Your task to perform on an android device: toggle show notifications on the lock screen Image 0: 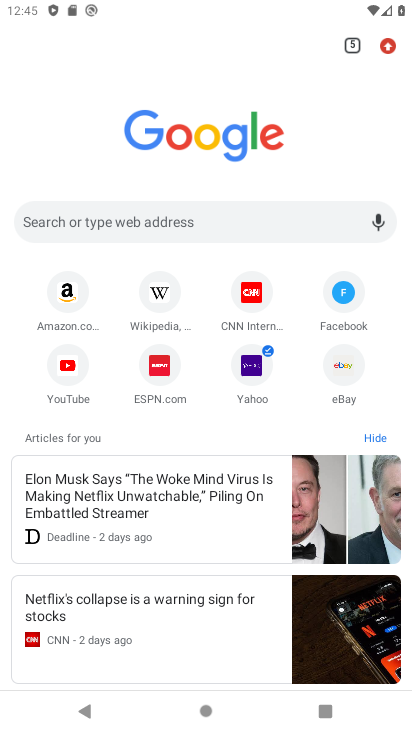
Step 0: press home button
Your task to perform on an android device: toggle show notifications on the lock screen Image 1: 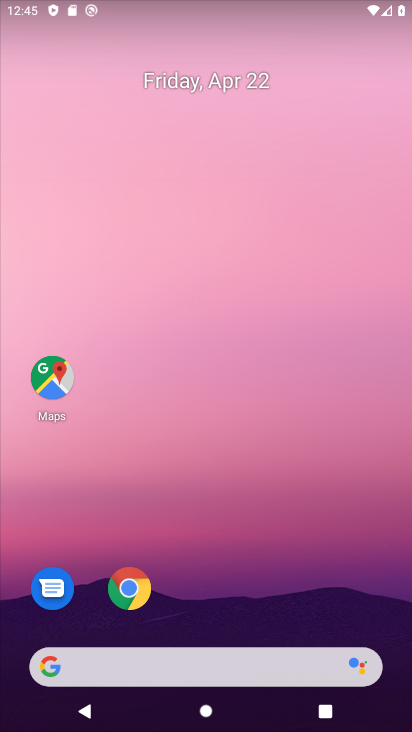
Step 1: drag from (241, 695) to (239, 293)
Your task to perform on an android device: toggle show notifications on the lock screen Image 2: 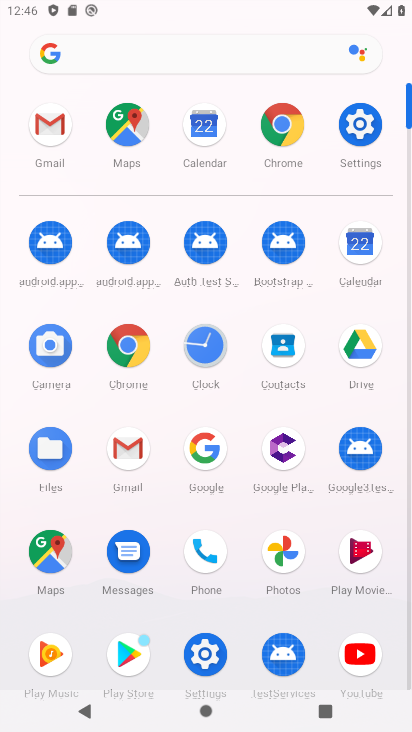
Step 2: click (209, 635)
Your task to perform on an android device: toggle show notifications on the lock screen Image 3: 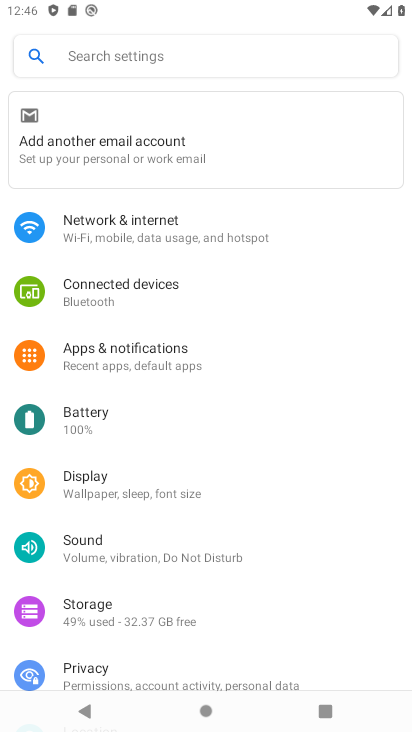
Step 3: click (189, 64)
Your task to perform on an android device: toggle show notifications on the lock screen Image 4: 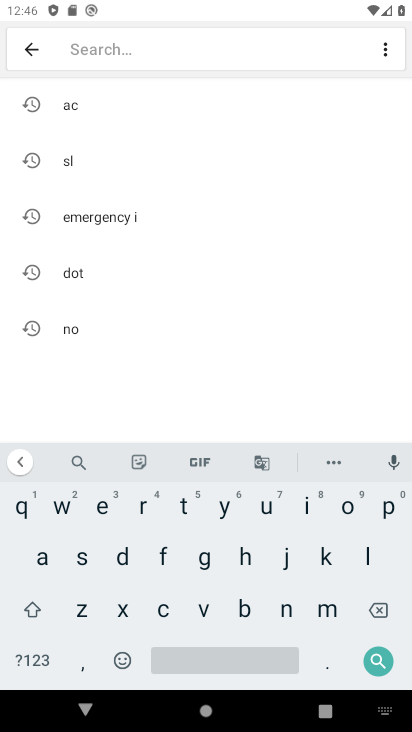
Step 4: click (81, 324)
Your task to perform on an android device: toggle show notifications on the lock screen Image 5: 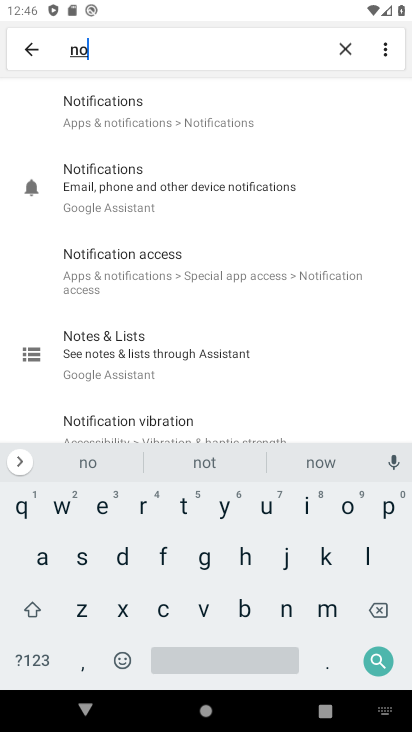
Step 5: click (170, 135)
Your task to perform on an android device: toggle show notifications on the lock screen Image 6: 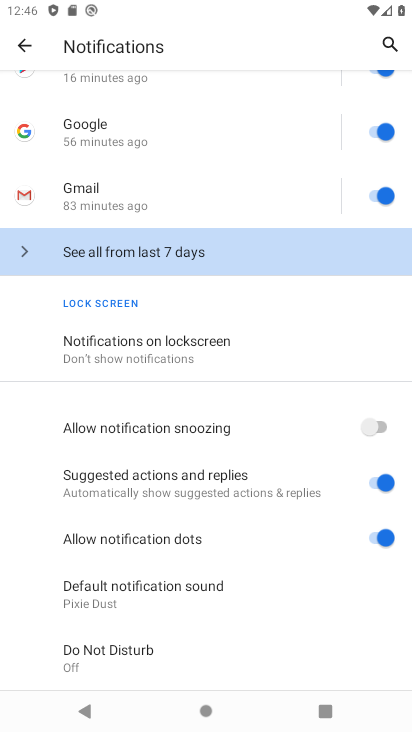
Step 6: click (111, 332)
Your task to perform on an android device: toggle show notifications on the lock screen Image 7: 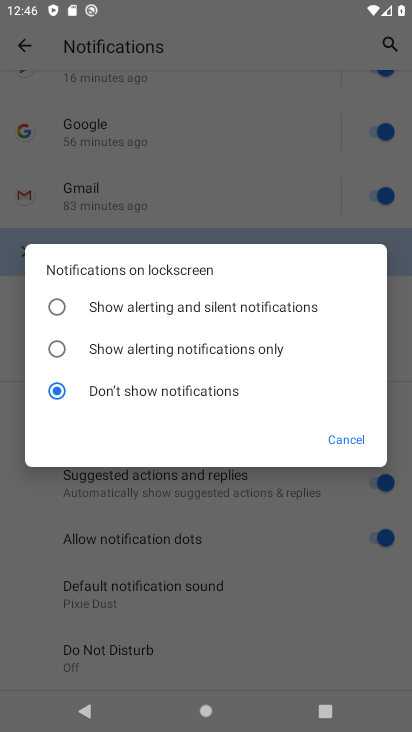
Step 7: click (127, 317)
Your task to perform on an android device: toggle show notifications on the lock screen Image 8: 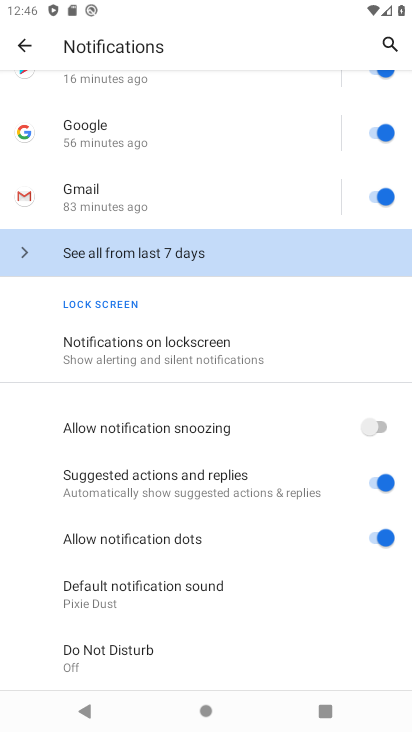
Step 8: task complete